Your task to perform on an android device: install app "Google Maps" Image 0: 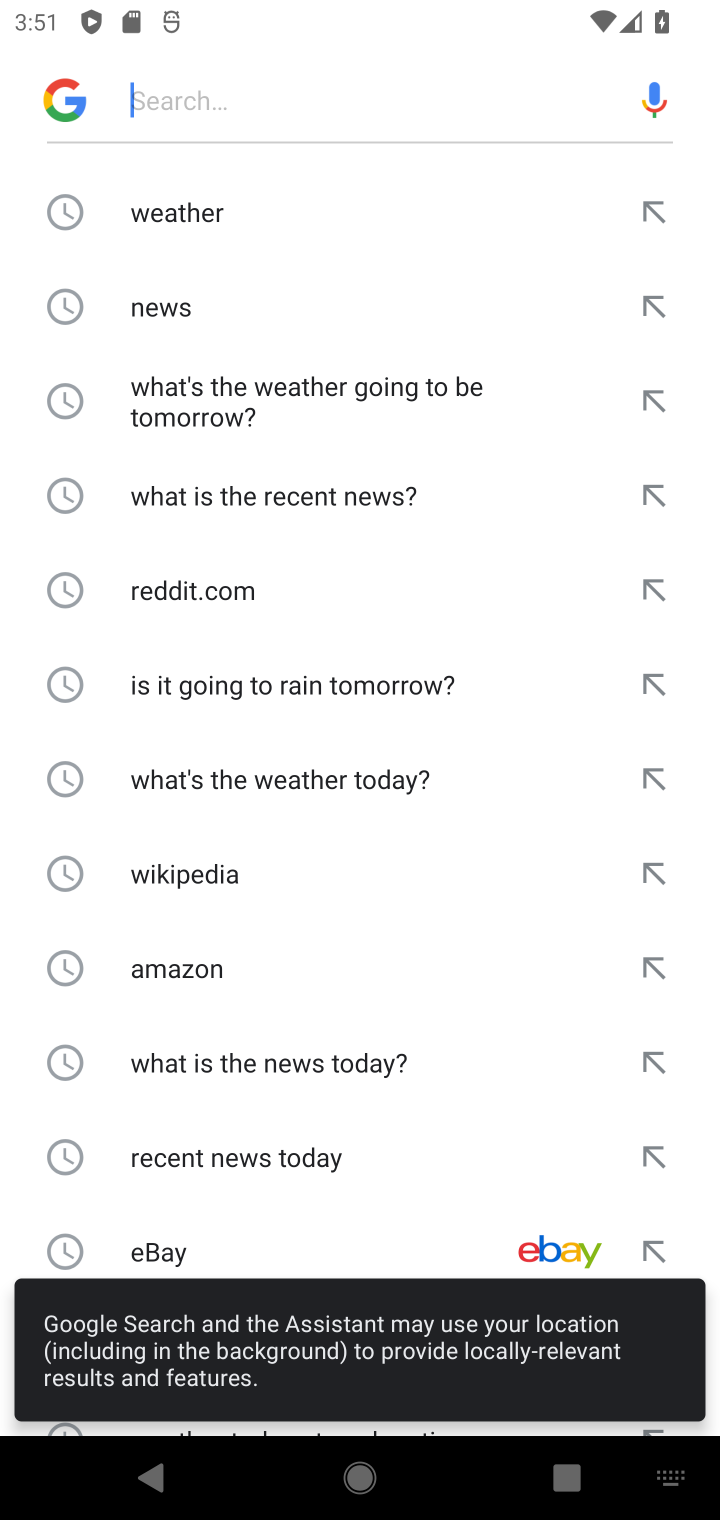
Step 0: press home button
Your task to perform on an android device: install app "Google Maps" Image 1: 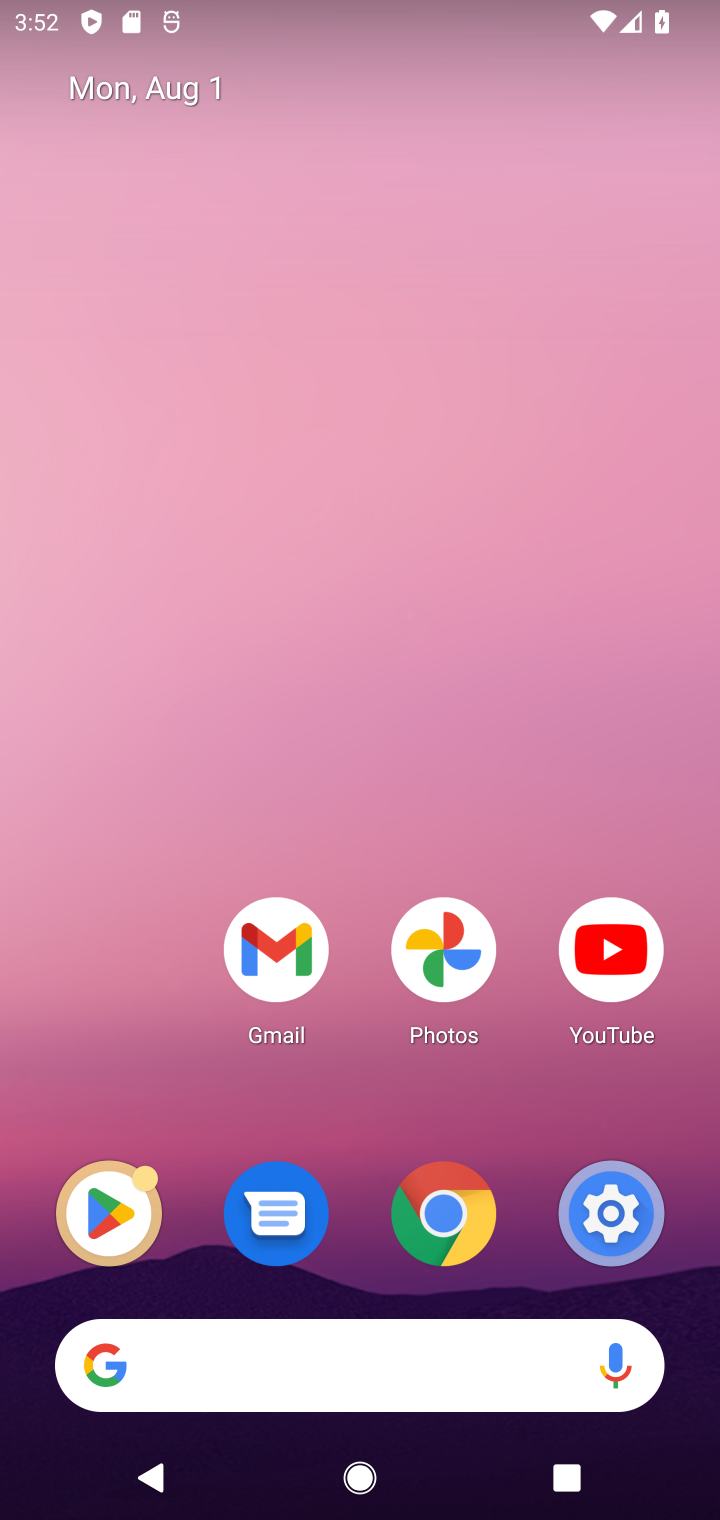
Step 1: click (127, 1213)
Your task to perform on an android device: install app "Google Maps" Image 2: 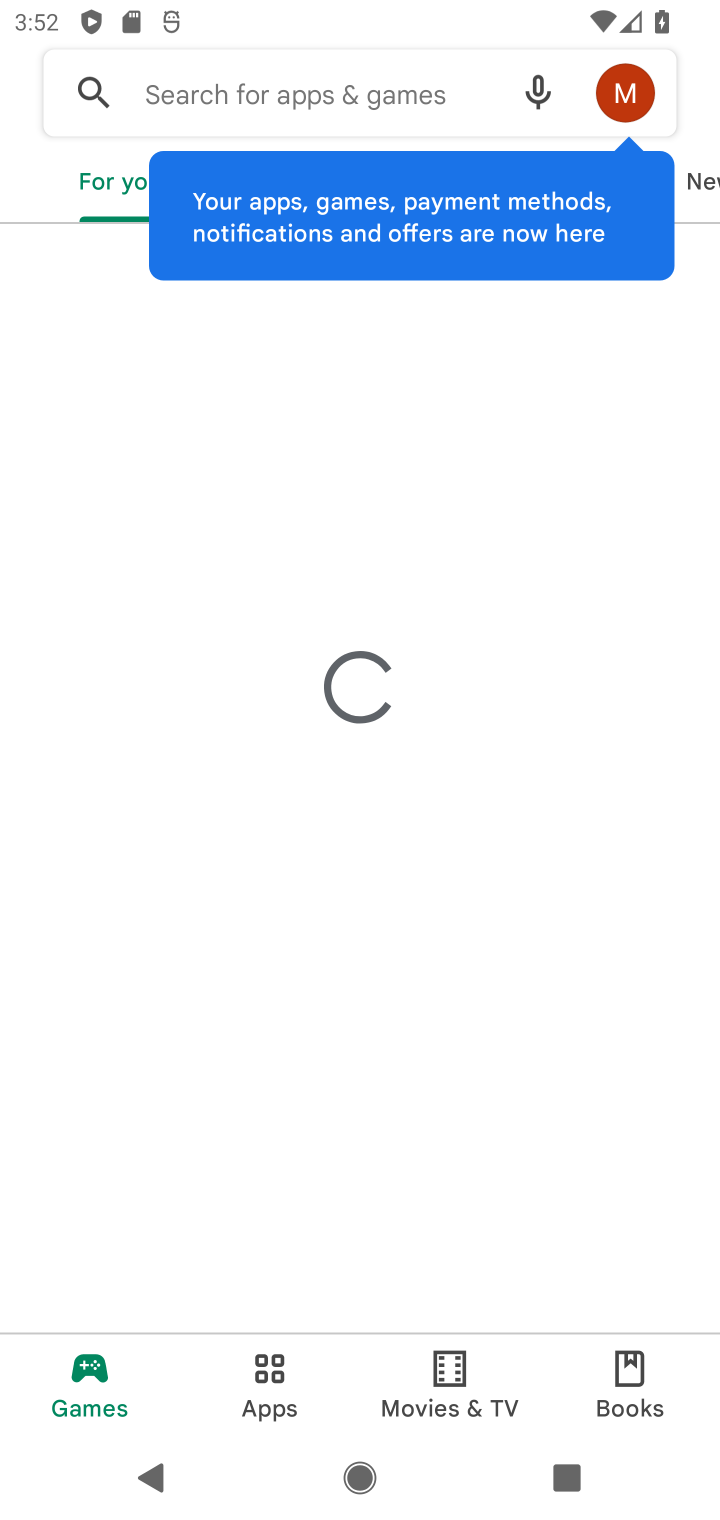
Step 2: click (358, 95)
Your task to perform on an android device: install app "Google Maps" Image 3: 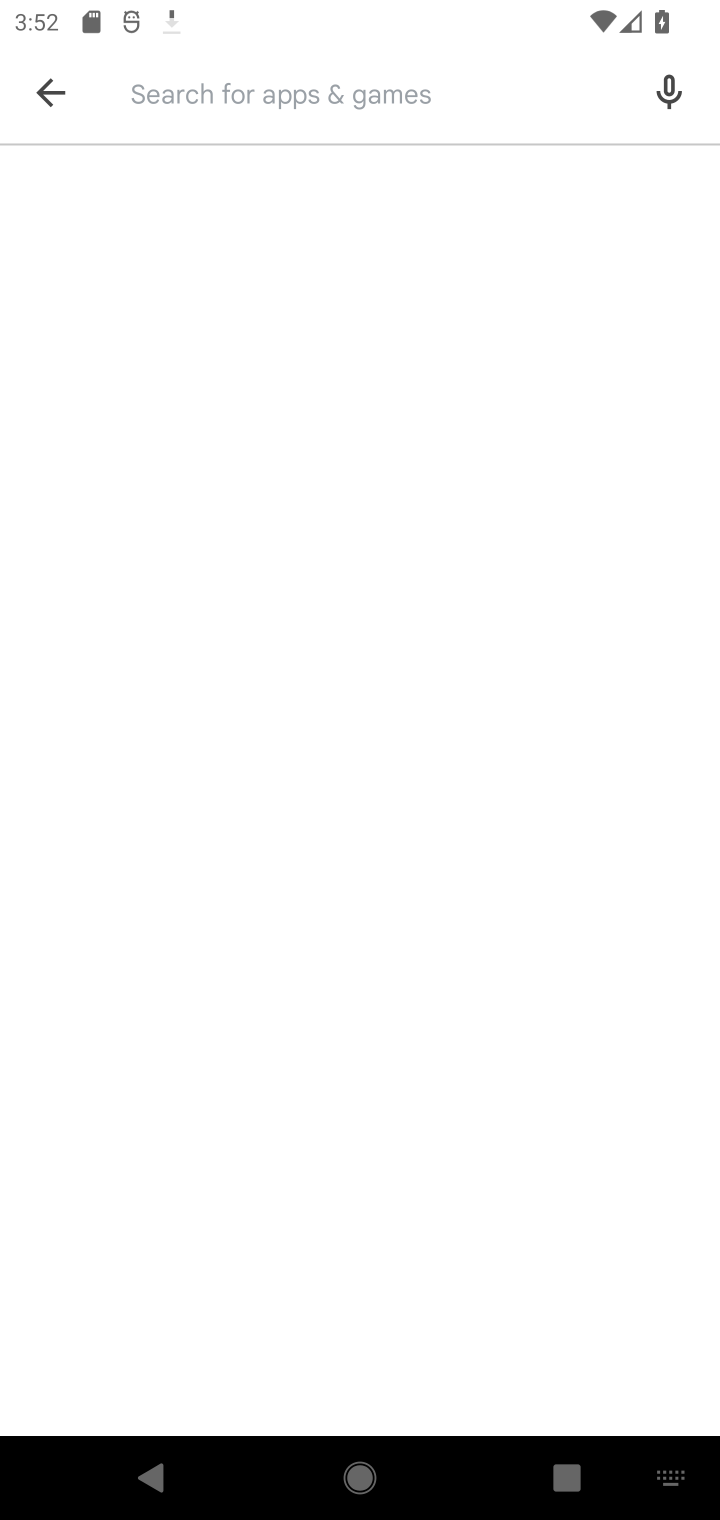
Step 3: type "google maps"
Your task to perform on an android device: install app "Google Maps" Image 4: 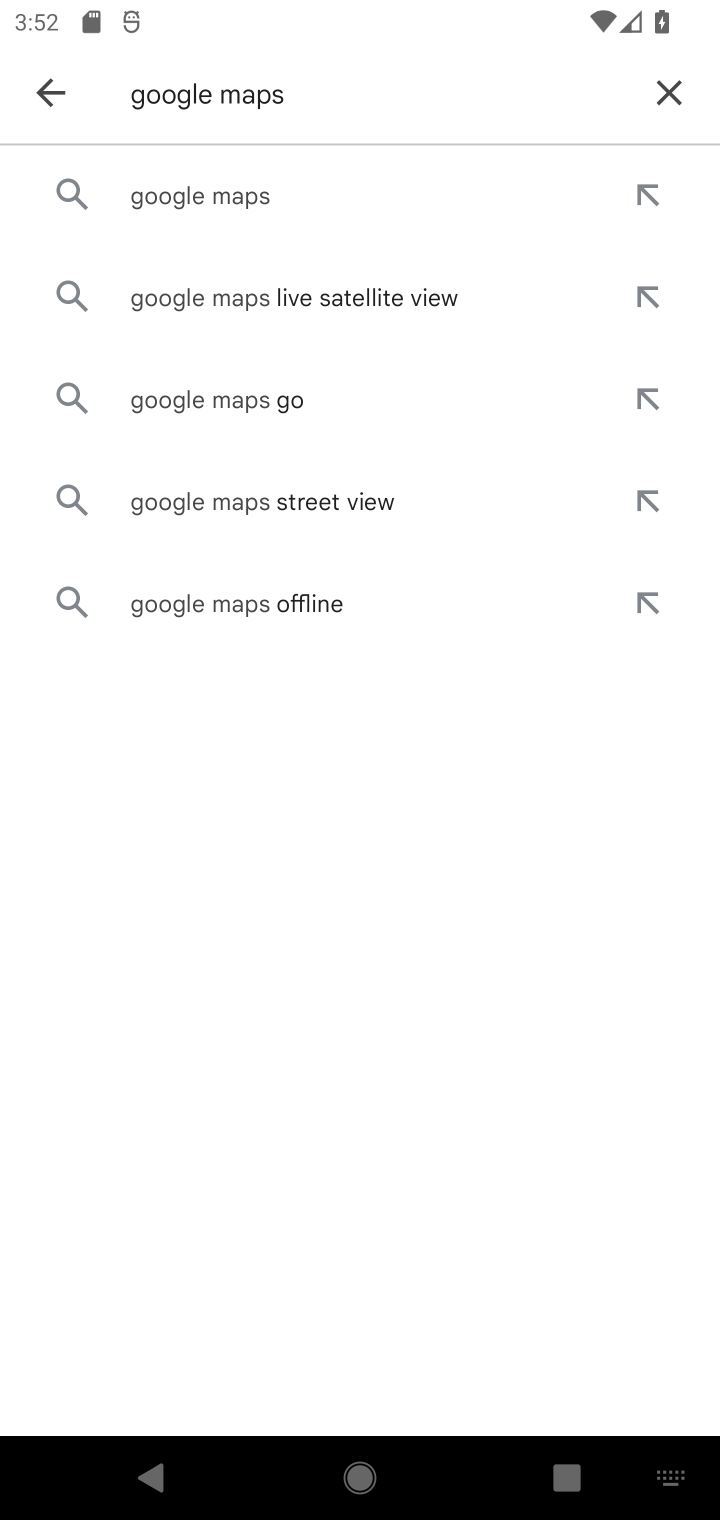
Step 4: click (414, 187)
Your task to perform on an android device: install app "Google Maps" Image 5: 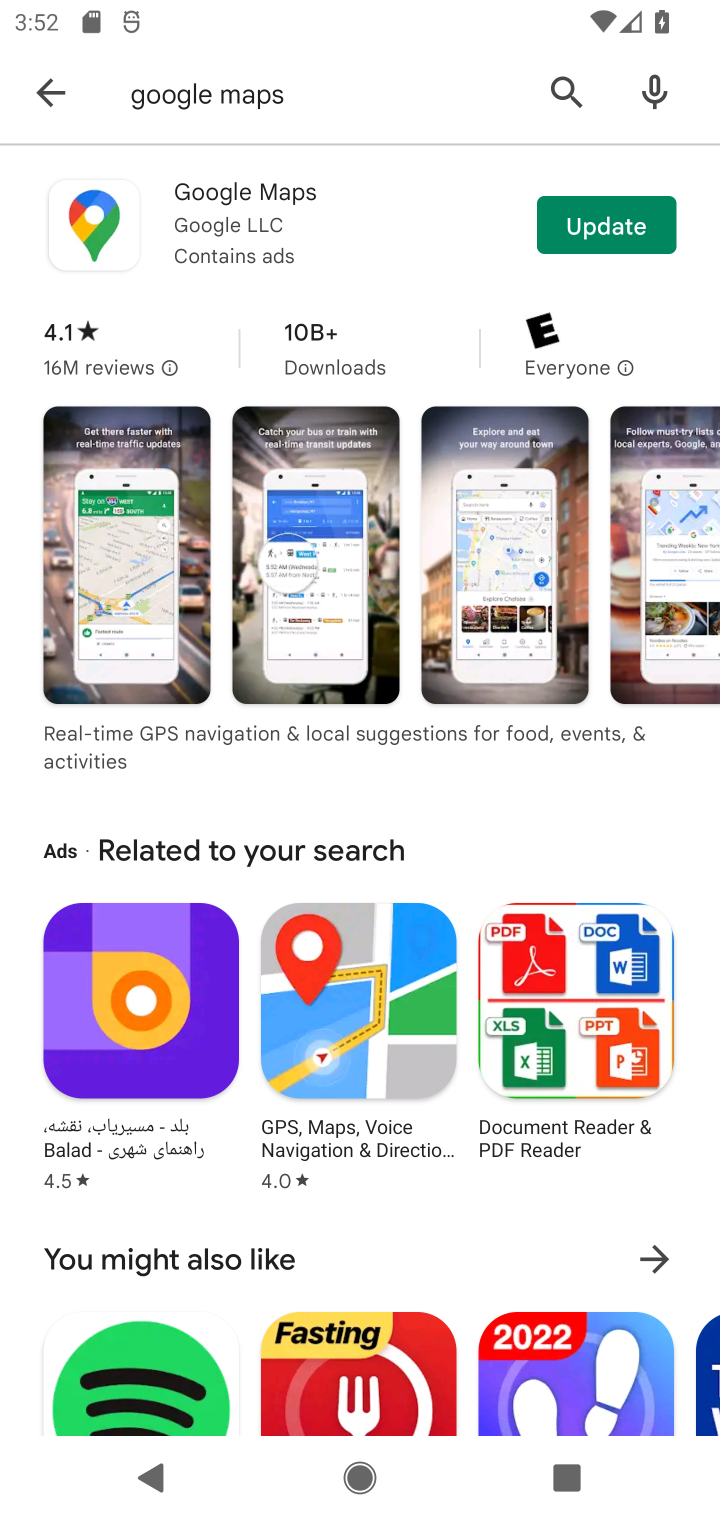
Step 5: click (214, 188)
Your task to perform on an android device: install app "Google Maps" Image 6: 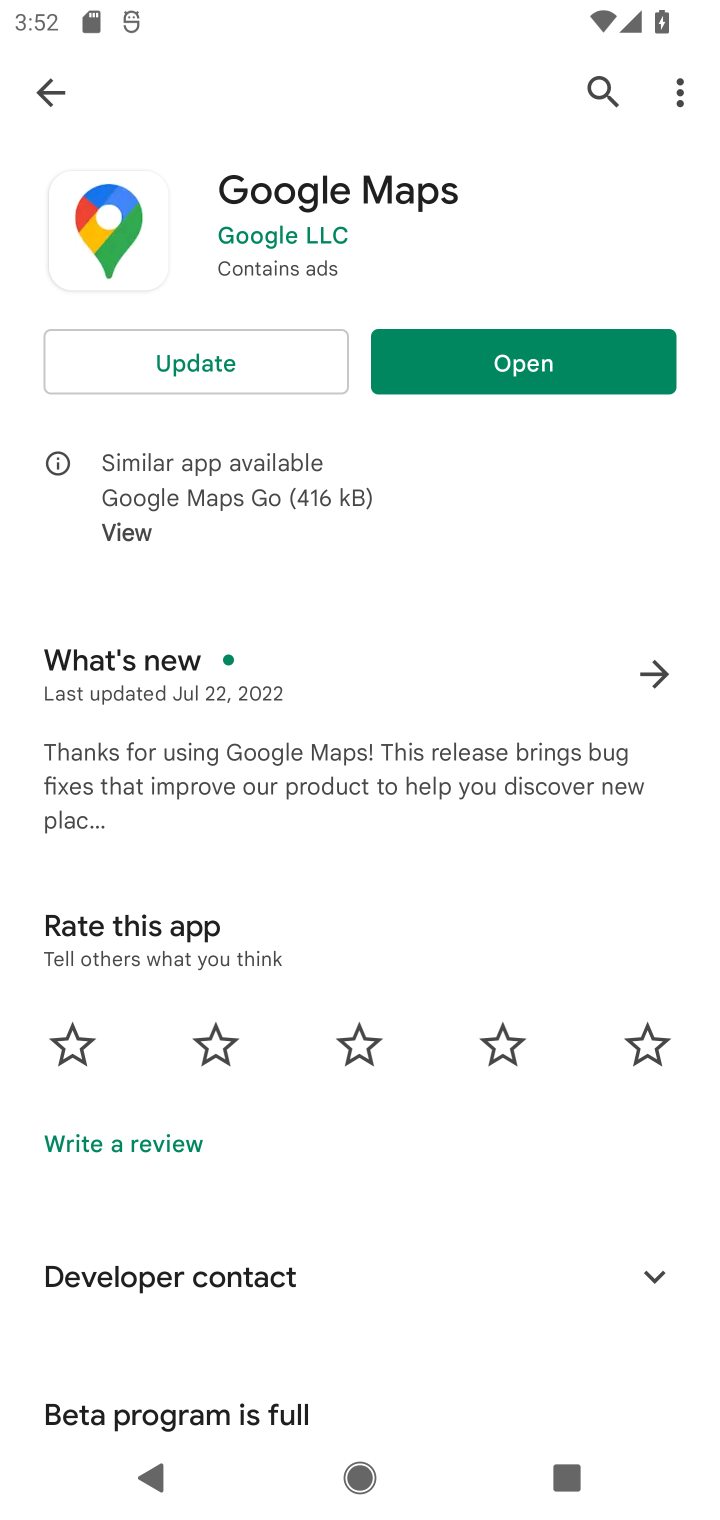
Step 6: task complete